Your task to perform on an android device: open app "YouTube Kids" (install if not already installed), go to login, and select forgot password Image 0: 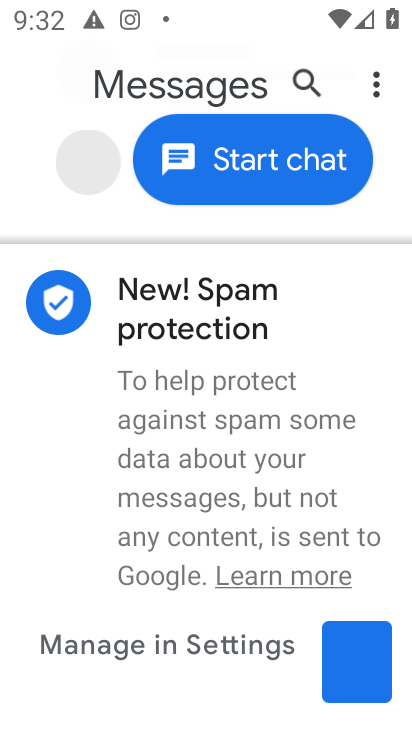
Step 0: press home button
Your task to perform on an android device: open app "YouTube Kids" (install if not already installed), go to login, and select forgot password Image 1: 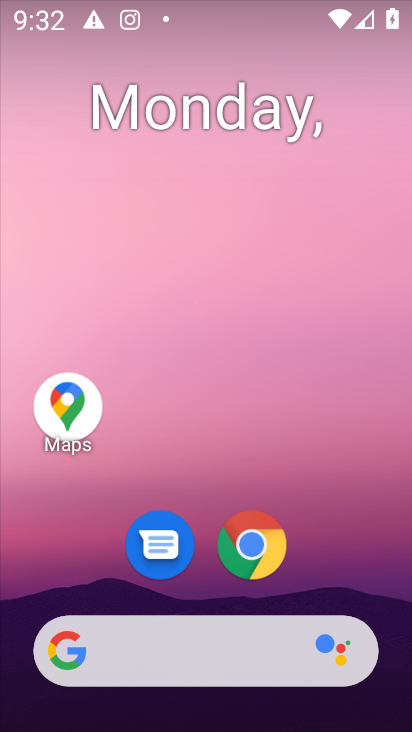
Step 1: drag from (344, 576) to (349, 88)
Your task to perform on an android device: open app "YouTube Kids" (install if not already installed), go to login, and select forgot password Image 2: 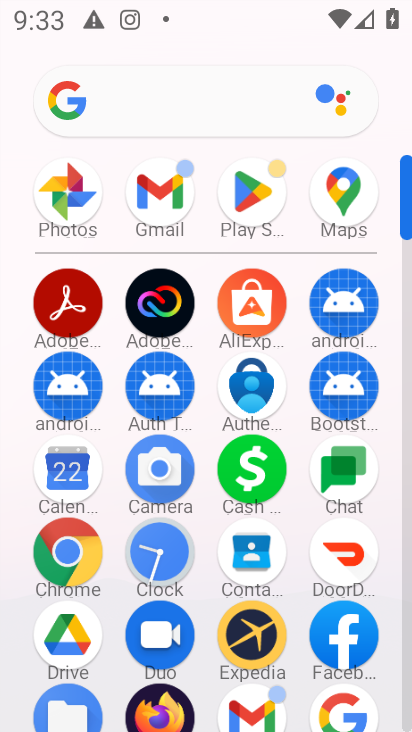
Step 2: click (260, 195)
Your task to perform on an android device: open app "YouTube Kids" (install if not already installed), go to login, and select forgot password Image 3: 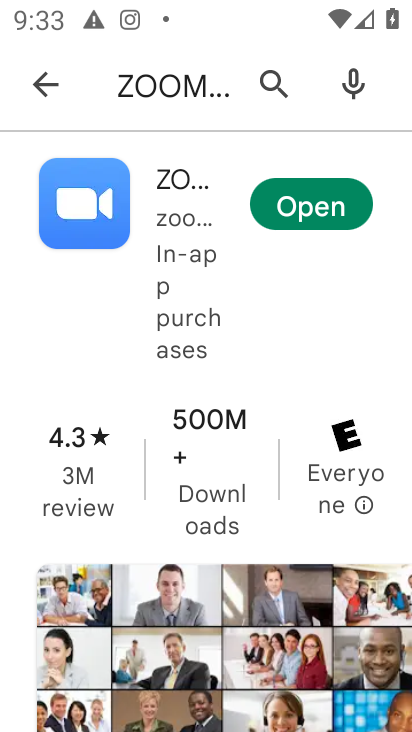
Step 3: press back button
Your task to perform on an android device: open app "YouTube Kids" (install if not already installed), go to login, and select forgot password Image 4: 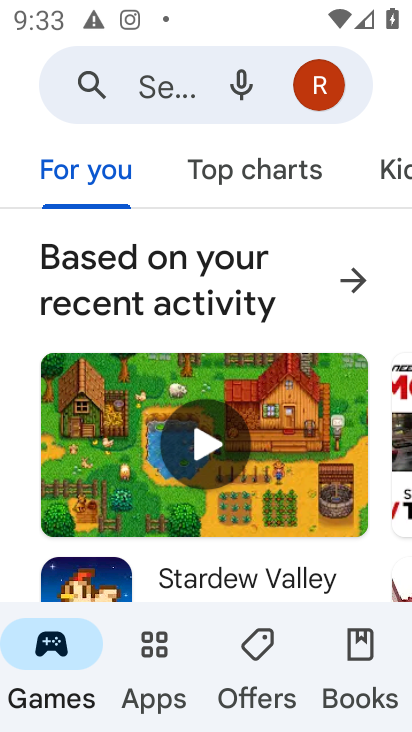
Step 4: click (165, 78)
Your task to perform on an android device: open app "YouTube Kids" (install if not already installed), go to login, and select forgot password Image 5: 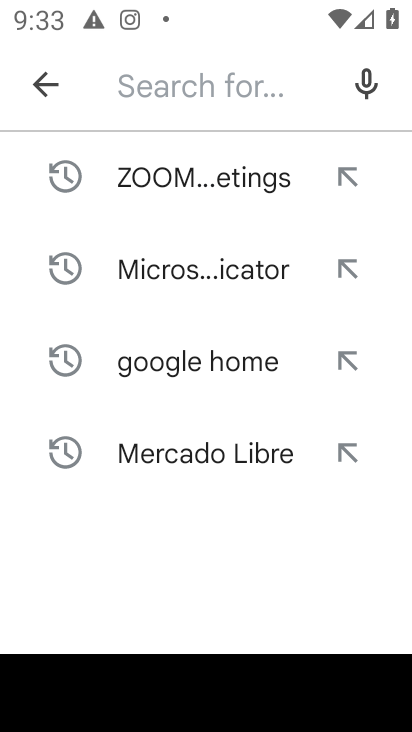
Step 5: press enter
Your task to perform on an android device: open app "YouTube Kids" (install if not already installed), go to login, and select forgot password Image 6: 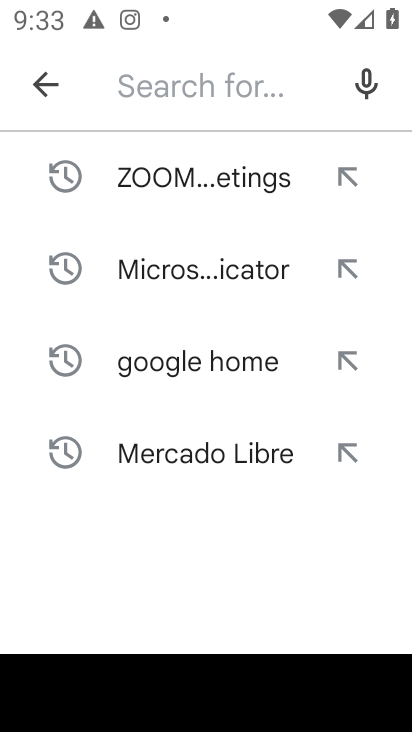
Step 6: type "YouTube Kids"
Your task to perform on an android device: open app "YouTube Kids" (install if not already installed), go to login, and select forgot password Image 7: 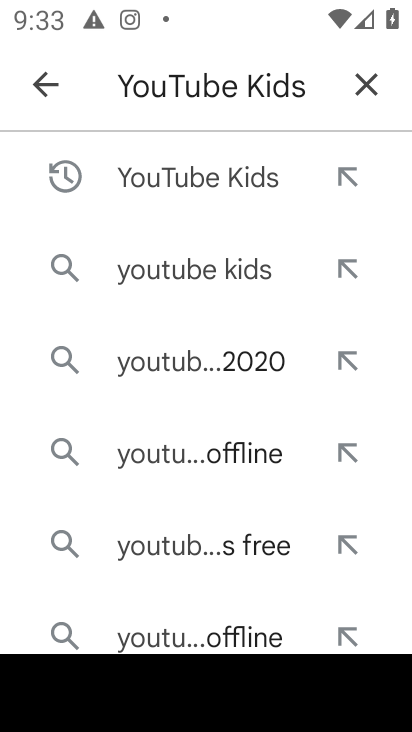
Step 7: click (219, 184)
Your task to perform on an android device: open app "YouTube Kids" (install if not already installed), go to login, and select forgot password Image 8: 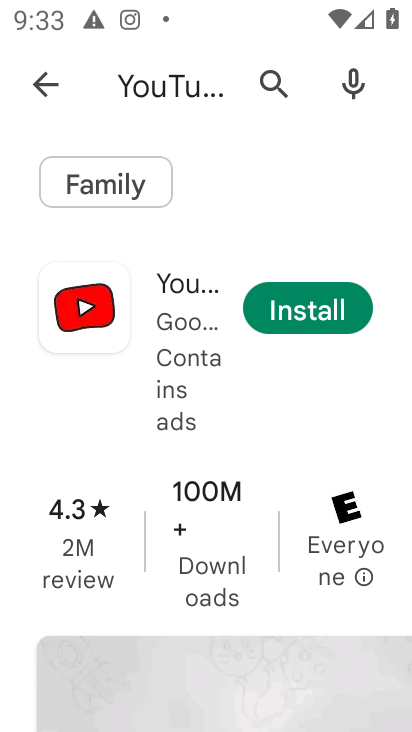
Step 8: click (310, 312)
Your task to perform on an android device: open app "YouTube Kids" (install if not already installed), go to login, and select forgot password Image 9: 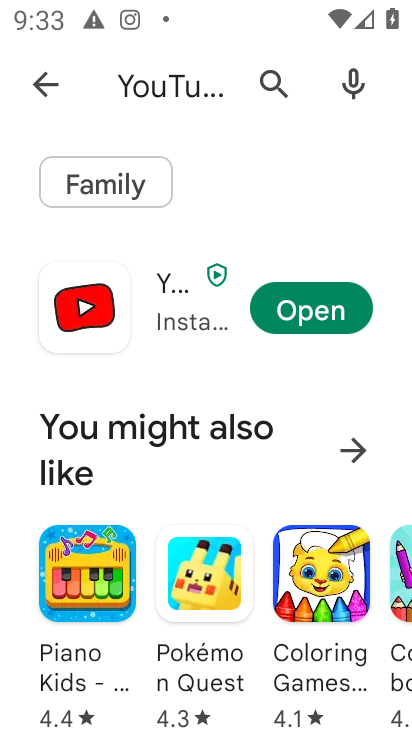
Step 9: click (335, 304)
Your task to perform on an android device: open app "YouTube Kids" (install if not already installed), go to login, and select forgot password Image 10: 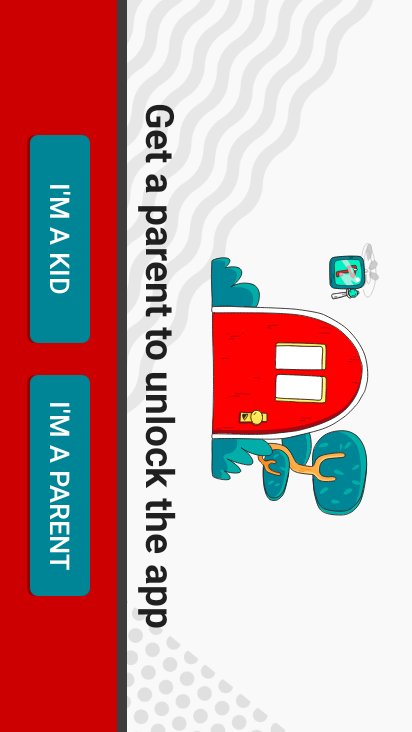
Step 10: click (67, 276)
Your task to perform on an android device: open app "YouTube Kids" (install if not already installed), go to login, and select forgot password Image 11: 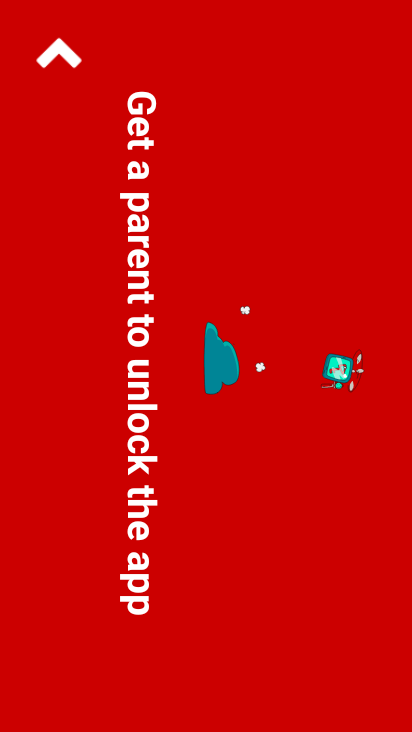
Step 11: click (62, 53)
Your task to perform on an android device: open app "YouTube Kids" (install if not already installed), go to login, and select forgot password Image 12: 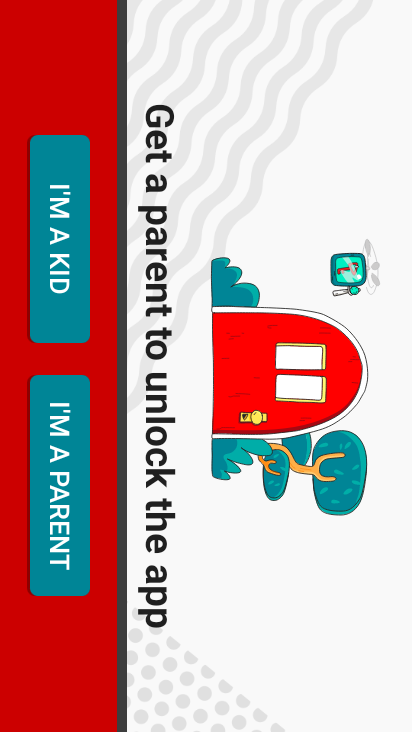
Step 12: task complete